Your task to perform on an android device: Go to eBay Image 0: 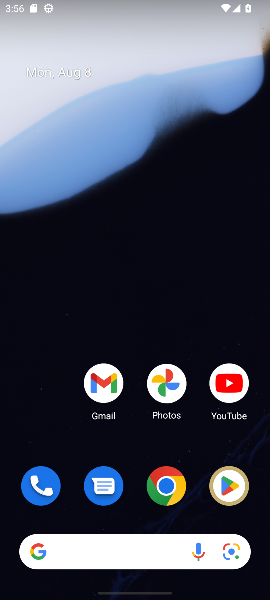
Step 0: press back button
Your task to perform on an android device: Go to eBay Image 1: 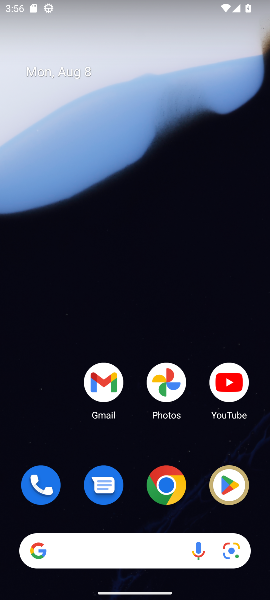
Step 1: drag from (189, 541) to (134, 164)
Your task to perform on an android device: Go to eBay Image 2: 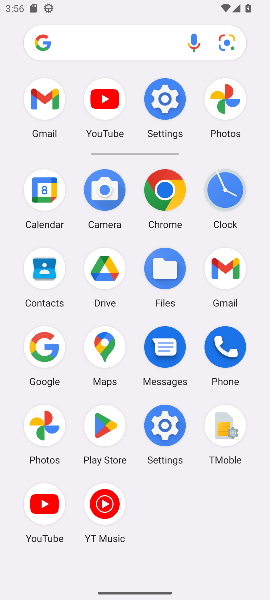
Step 2: click (160, 199)
Your task to perform on an android device: Go to eBay Image 3: 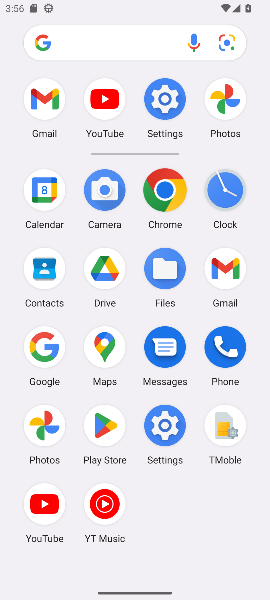
Step 3: click (160, 199)
Your task to perform on an android device: Go to eBay Image 4: 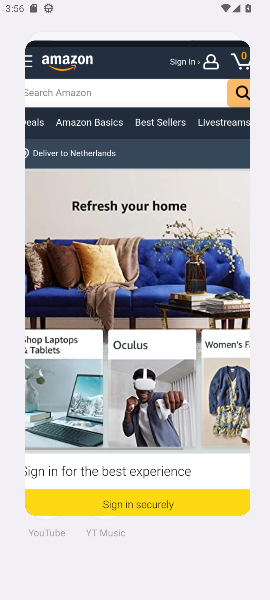
Step 4: click (160, 189)
Your task to perform on an android device: Go to eBay Image 5: 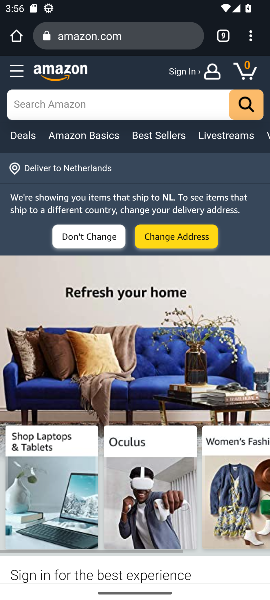
Step 5: click (158, 187)
Your task to perform on an android device: Go to eBay Image 6: 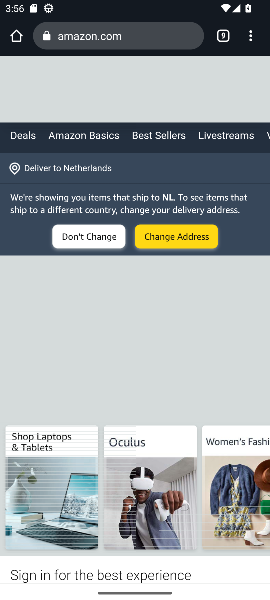
Step 6: click (158, 195)
Your task to perform on an android device: Go to eBay Image 7: 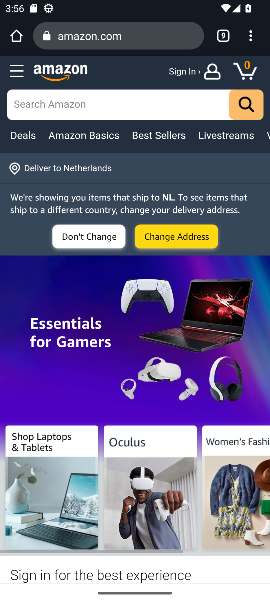
Step 7: drag from (248, 33) to (144, 460)
Your task to perform on an android device: Go to eBay Image 8: 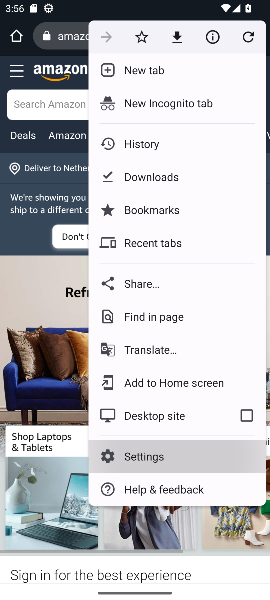
Step 8: click (147, 462)
Your task to perform on an android device: Go to eBay Image 9: 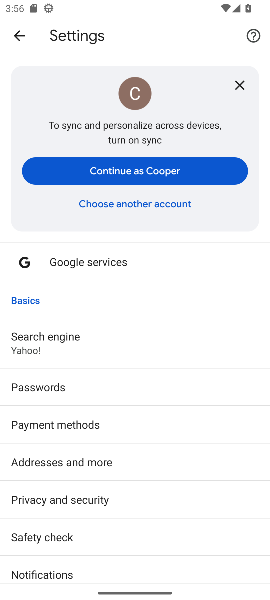
Step 9: drag from (40, 455) to (36, 241)
Your task to perform on an android device: Go to eBay Image 10: 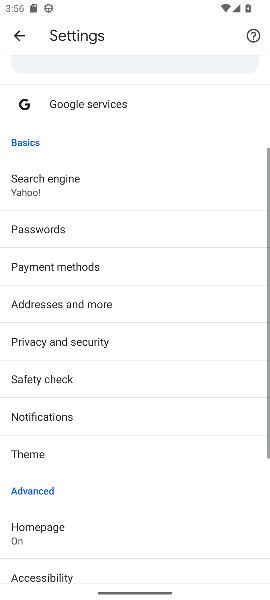
Step 10: drag from (74, 399) to (59, 130)
Your task to perform on an android device: Go to eBay Image 11: 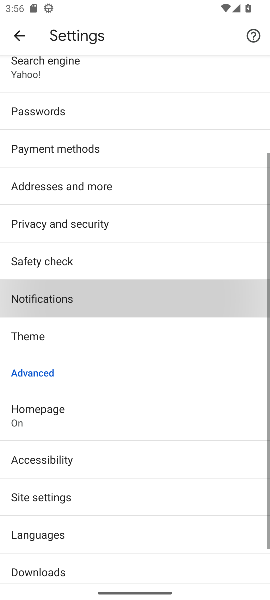
Step 11: drag from (80, 184) to (80, 127)
Your task to perform on an android device: Go to eBay Image 12: 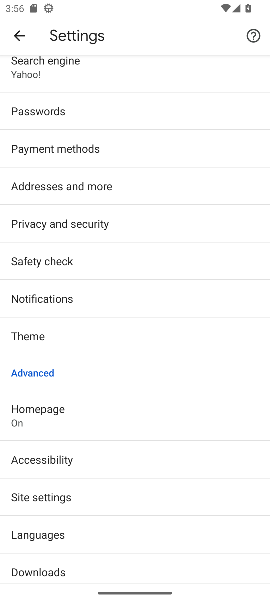
Step 12: drag from (86, 397) to (103, 459)
Your task to perform on an android device: Go to eBay Image 13: 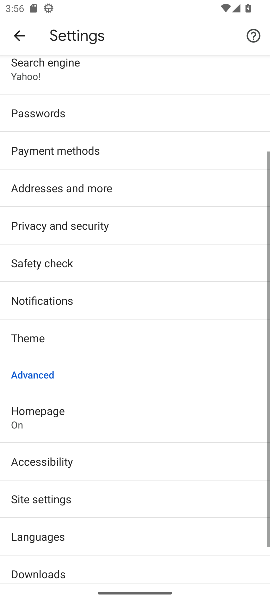
Step 13: drag from (75, 143) to (89, 428)
Your task to perform on an android device: Go to eBay Image 14: 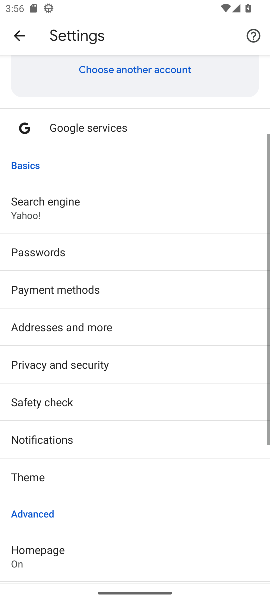
Step 14: click (57, 530)
Your task to perform on an android device: Go to eBay Image 15: 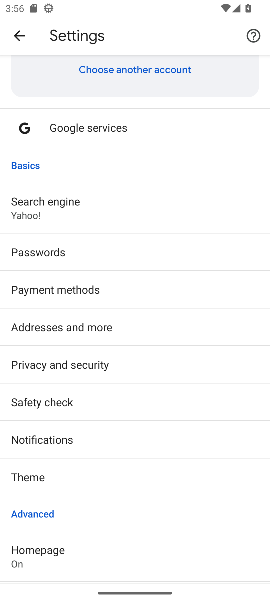
Step 15: click (11, 45)
Your task to perform on an android device: Go to eBay Image 16: 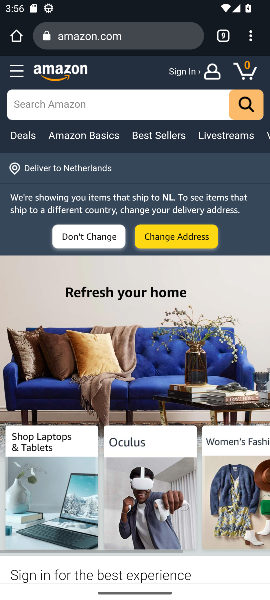
Step 16: drag from (249, 37) to (125, 71)
Your task to perform on an android device: Go to eBay Image 17: 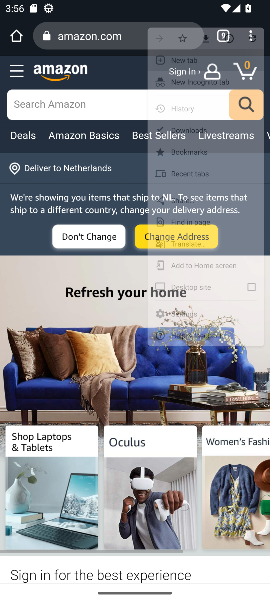
Step 17: click (134, 96)
Your task to perform on an android device: Go to eBay Image 18: 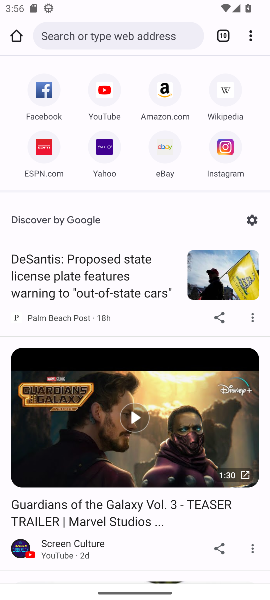
Step 18: click (168, 145)
Your task to perform on an android device: Go to eBay Image 19: 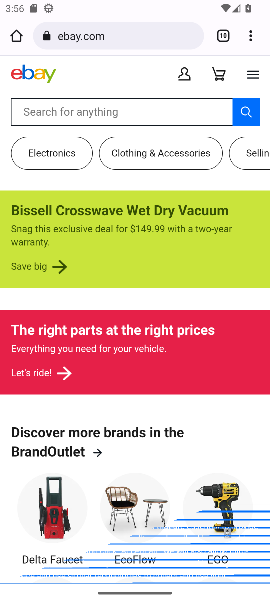
Step 19: task complete